Your task to perform on an android device: toggle airplane mode Image 0: 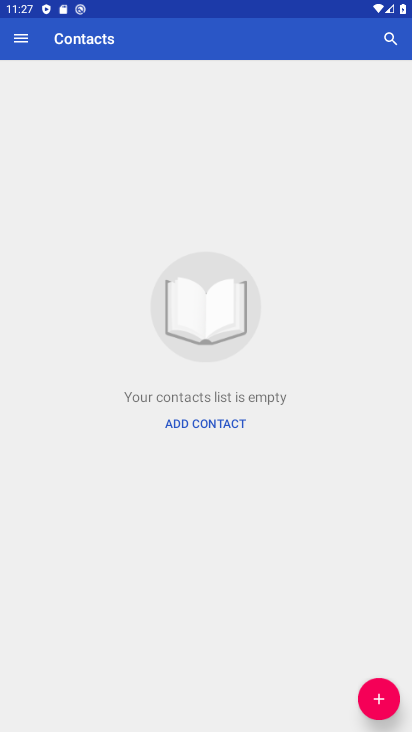
Step 0: press home button
Your task to perform on an android device: toggle airplane mode Image 1: 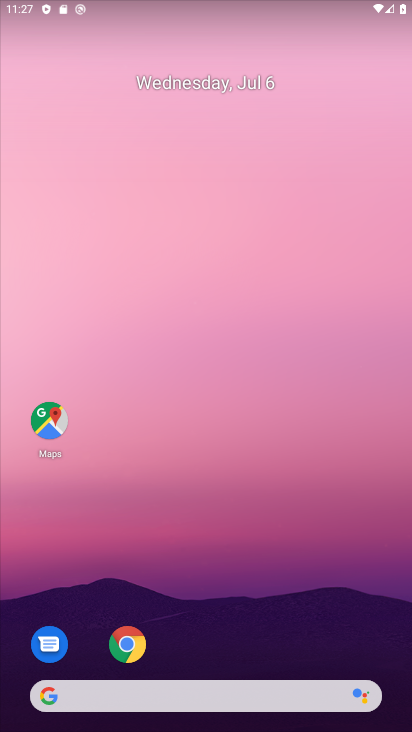
Step 1: drag from (211, 683) to (189, 116)
Your task to perform on an android device: toggle airplane mode Image 2: 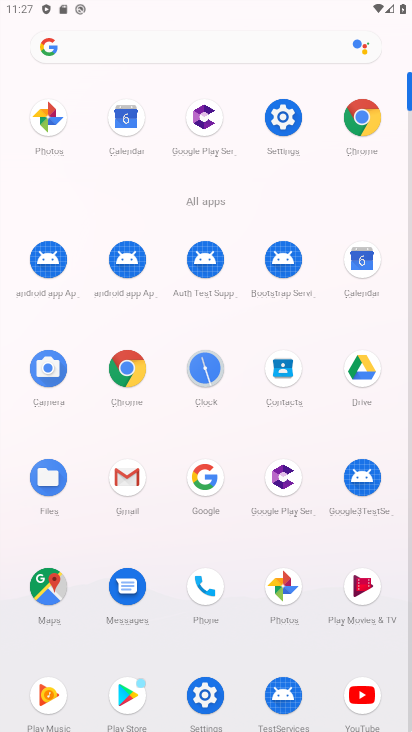
Step 2: click (289, 114)
Your task to perform on an android device: toggle airplane mode Image 3: 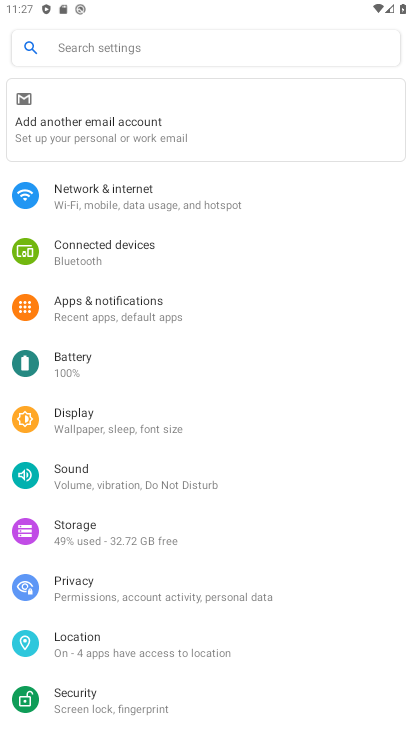
Step 3: click (152, 206)
Your task to perform on an android device: toggle airplane mode Image 4: 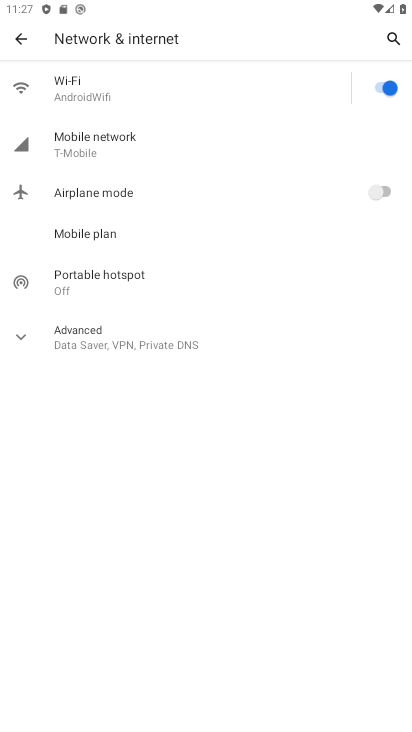
Step 4: click (379, 191)
Your task to perform on an android device: toggle airplane mode Image 5: 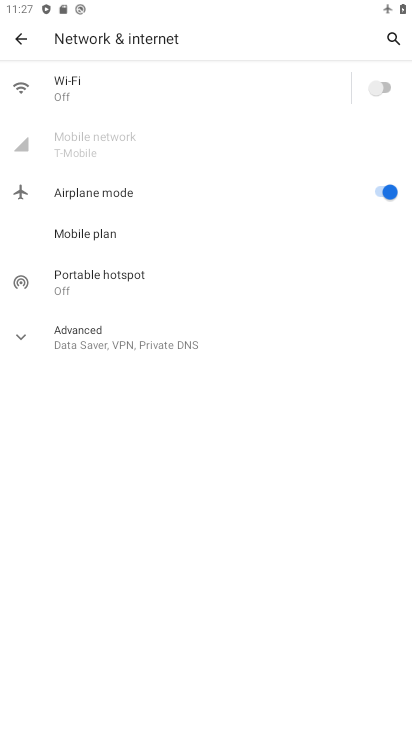
Step 5: task complete